Your task to perform on an android device: move an email to a new category in the gmail app Image 0: 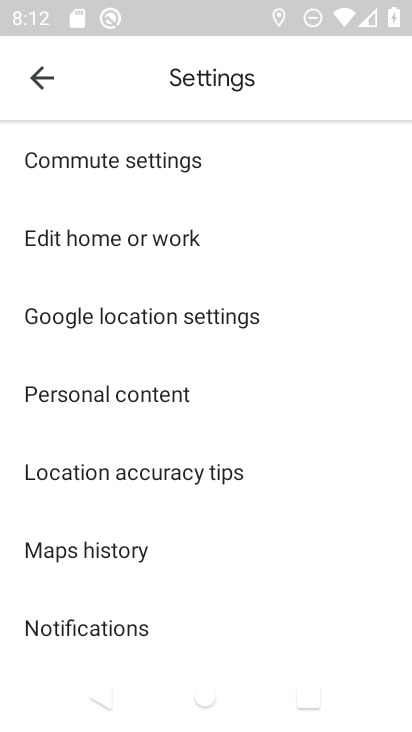
Step 0: press home button
Your task to perform on an android device: move an email to a new category in the gmail app Image 1: 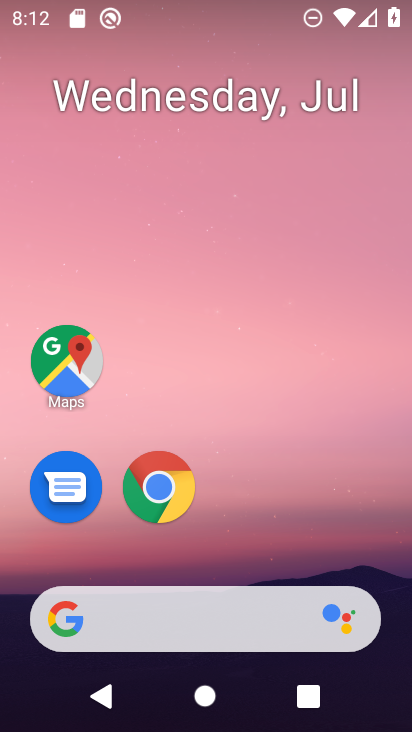
Step 1: drag from (371, 509) to (401, 81)
Your task to perform on an android device: move an email to a new category in the gmail app Image 2: 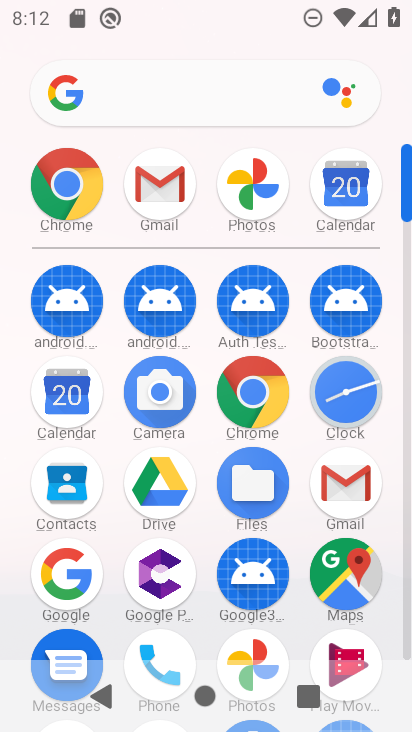
Step 2: click (353, 482)
Your task to perform on an android device: move an email to a new category in the gmail app Image 3: 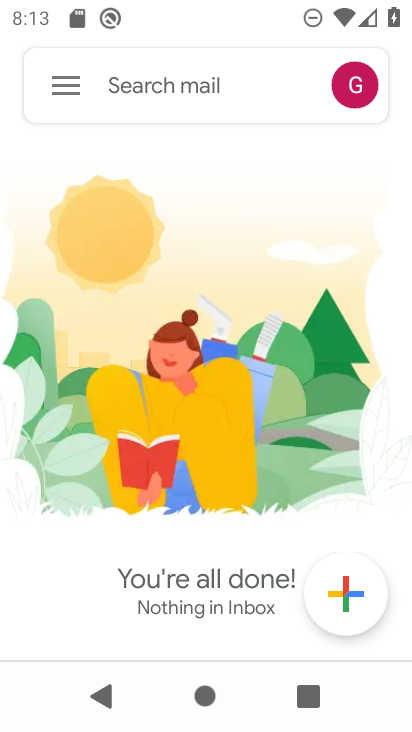
Step 3: click (65, 81)
Your task to perform on an android device: move an email to a new category in the gmail app Image 4: 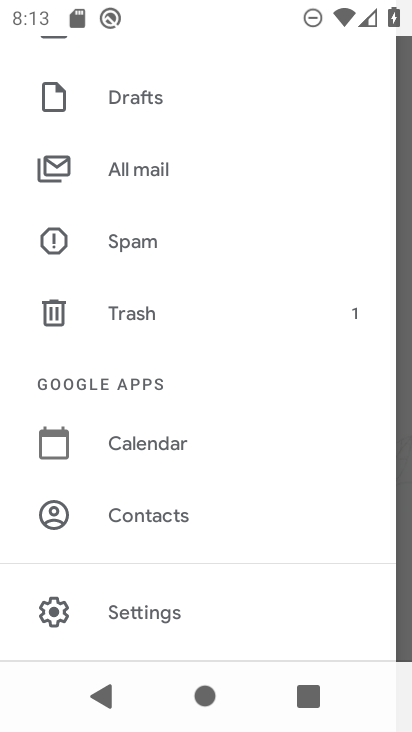
Step 4: drag from (283, 228) to (294, 350)
Your task to perform on an android device: move an email to a new category in the gmail app Image 5: 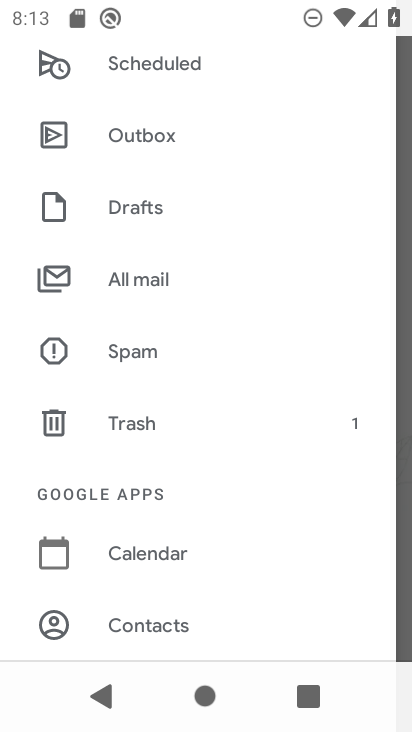
Step 5: click (200, 302)
Your task to perform on an android device: move an email to a new category in the gmail app Image 6: 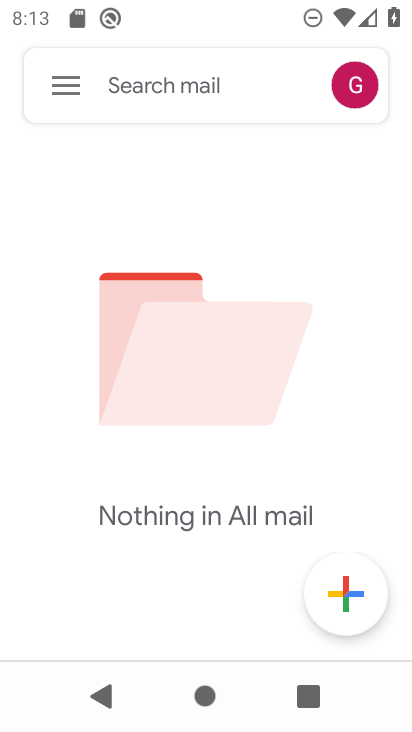
Step 6: task complete